Your task to perform on an android device: Go to internet settings Image 0: 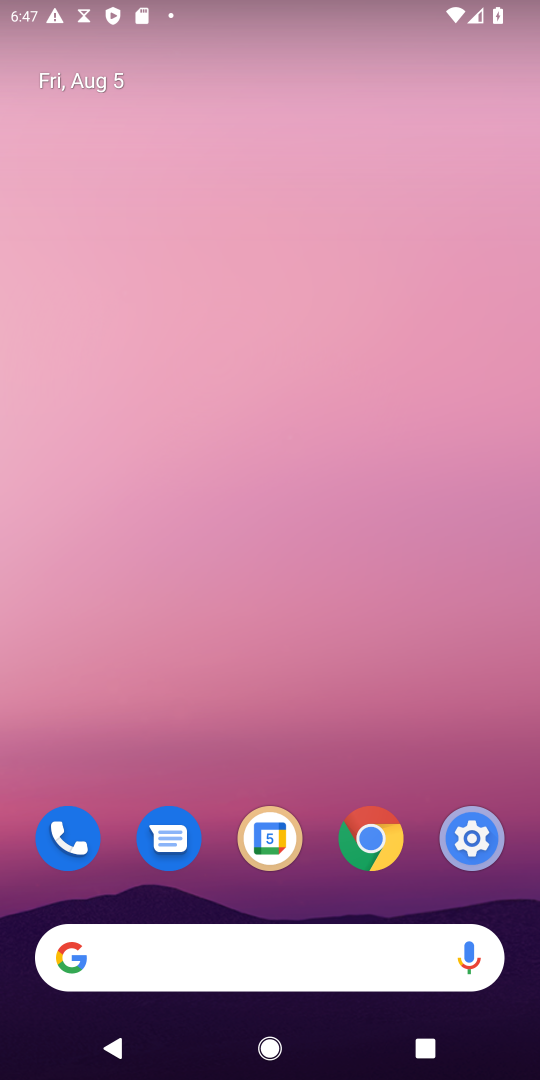
Step 0: press home button
Your task to perform on an android device: Go to internet settings Image 1: 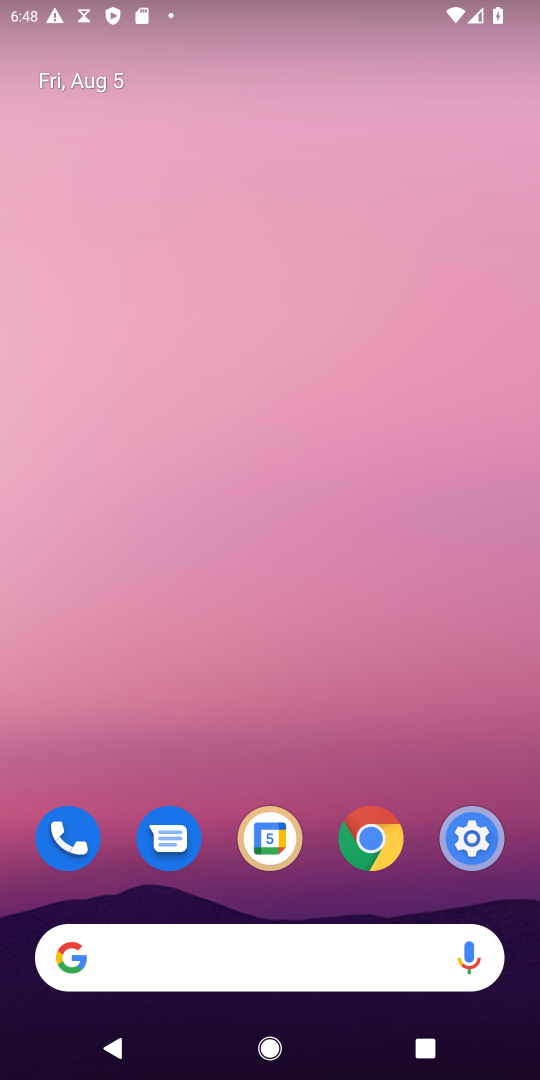
Step 1: drag from (287, 799) to (344, 72)
Your task to perform on an android device: Go to internet settings Image 2: 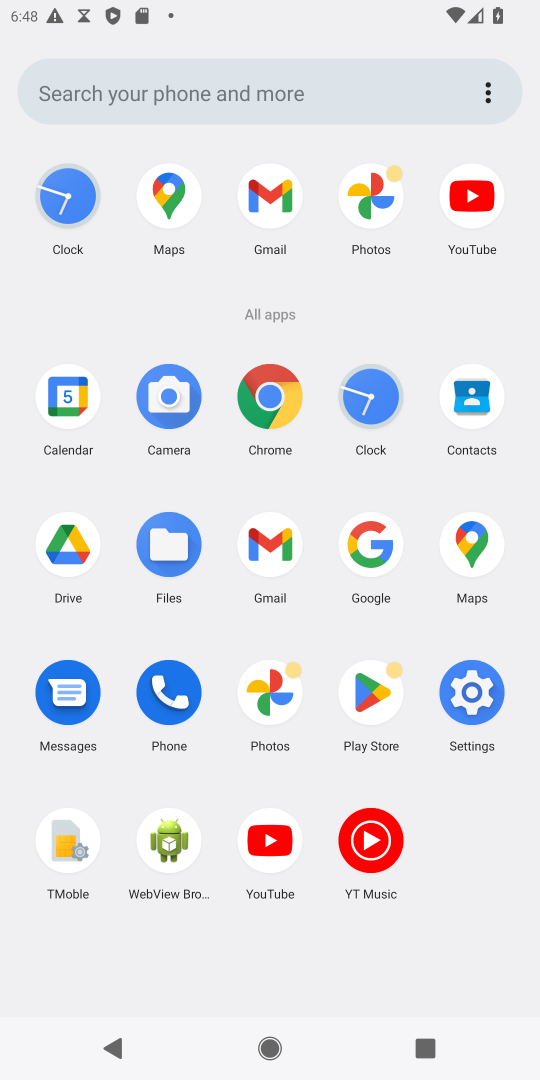
Step 2: click (483, 689)
Your task to perform on an android device: Go to internet settings Image 3: 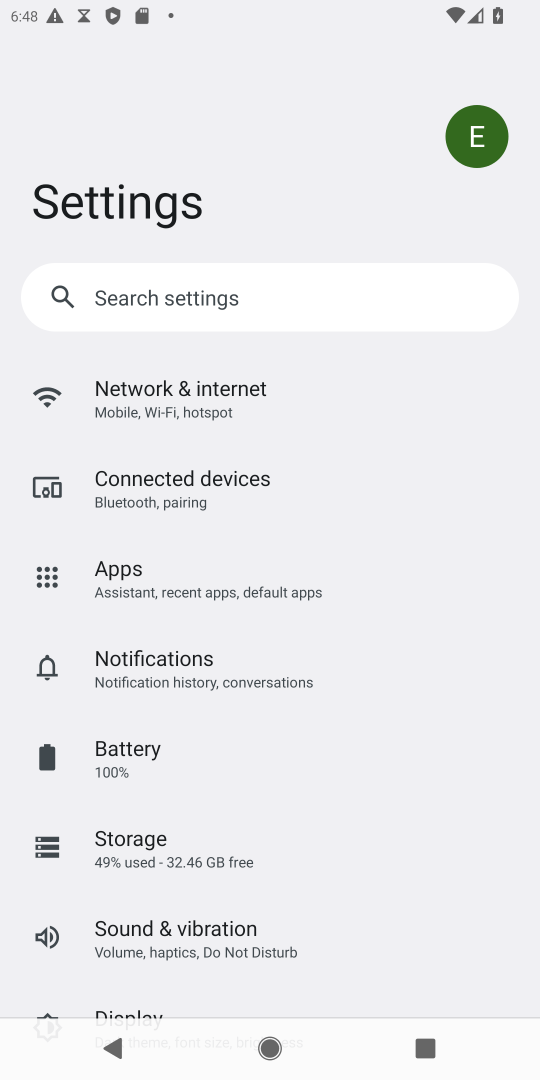
Step 3: click (145, 402)
Your task to perform on an android device: Go to internet settings Image 4: 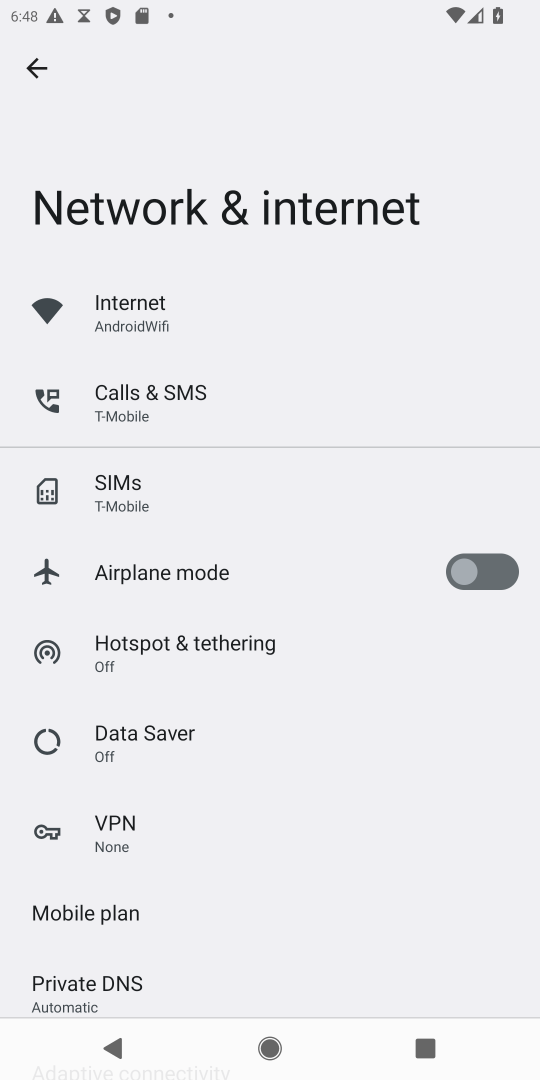
Step 4: click (241, 321)
Your task to perform on an android device: Go to internet settings Image 5: 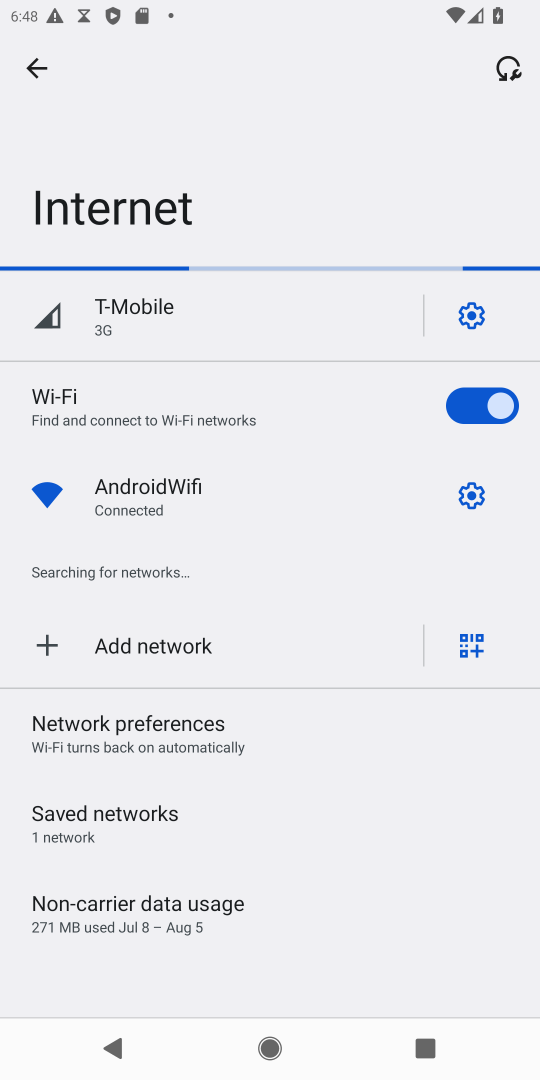
Step 5: task complete